Your task to perform on an android device: toggle notification dots Image 0: 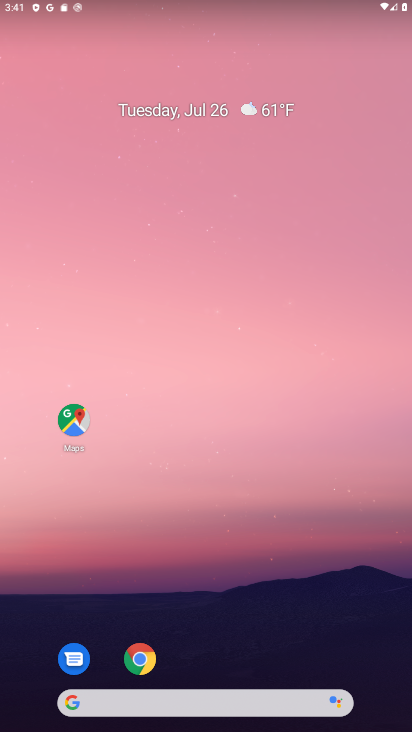
Step 0: drag from (267, 568) to (274, 9)
Your task to perform on an android device: toggle notification dots Image 1: 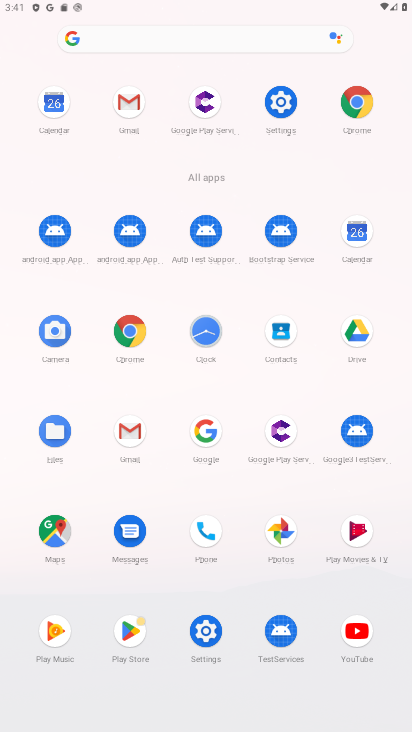
Step 1: click (279, 90)
Your task to perform on an android device: toggle notification dots Image 2: 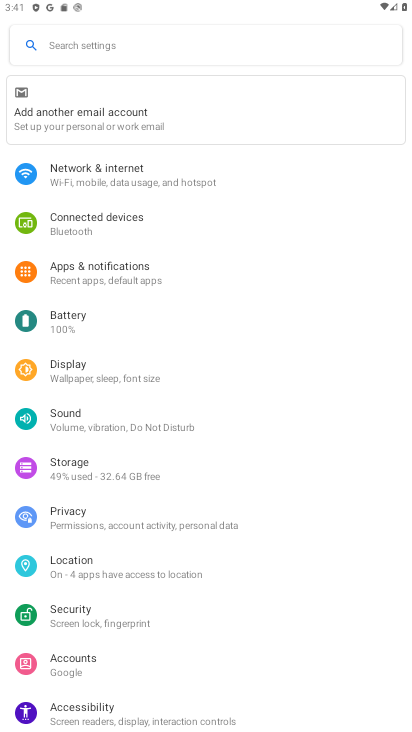
Step 2: click (131, 268)
Your task to perform on an android device: toggle notification dots Image 3: 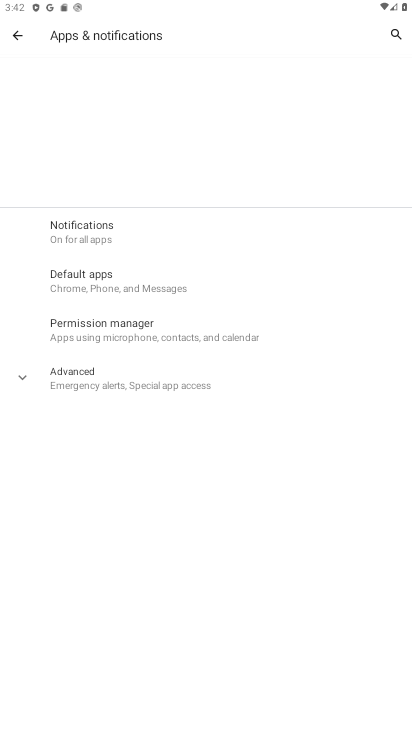
Step 3: click (110, 238)
Your task to perform on an android device: toggle notification dots Image 4: 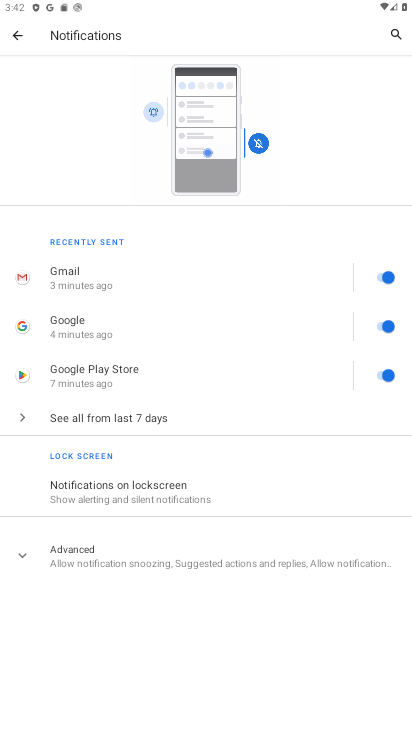
Step 4: click (172, 542)
Your task to perform on an android device: toggle notification dots Image 5: 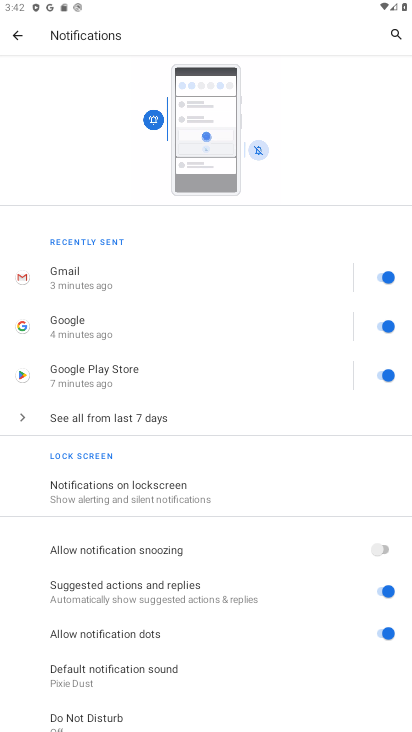
Step 5: click (385, 640)
Your task to perform on an android device: toggle notification dots Image 6: 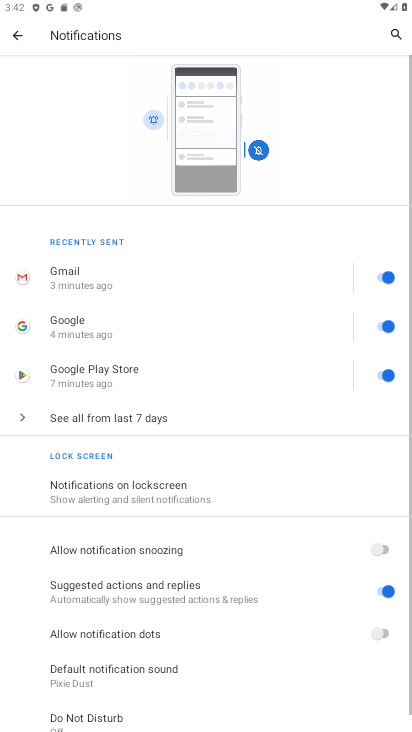
Step 6: task complete